Your task to perform on an android device: add a contact in the contacts app Image 0: 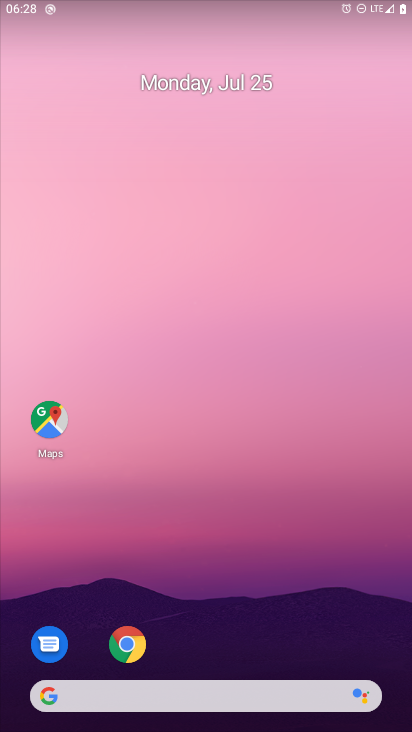
Step 0: press home button
Your task to perform on an android device: add a contact in the contacts app Image 1: 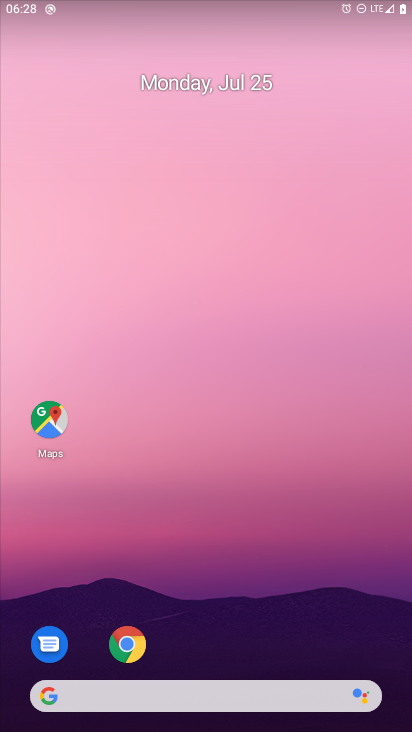
Step 1: drag from (248, 659) to (227, 149)
Your task to perform on an android device: add a contact in the contacts app Image 2: 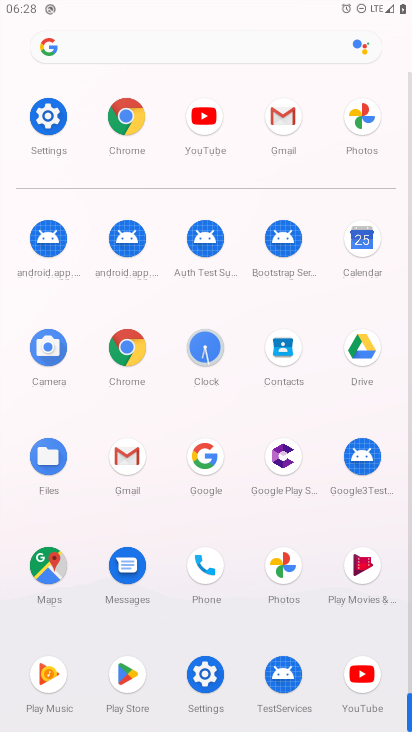
Step 2: click (286, 347)
Your task to perform on an android device: add a contact in the contacts app Image 3: 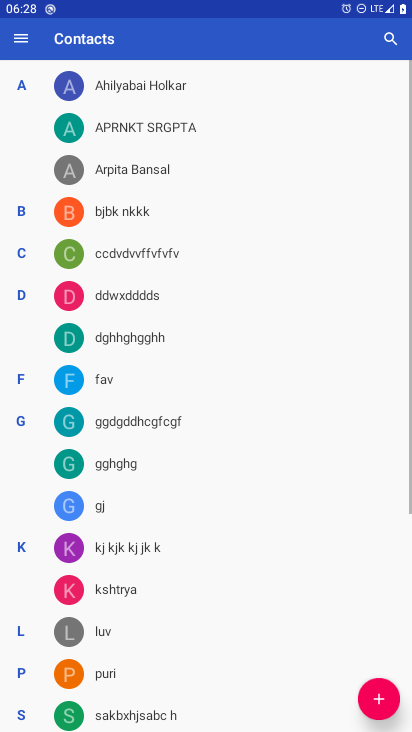
Step 3: click (375, 704)
Your task to perform on an android device: add a contact in the contacts app Image 4: 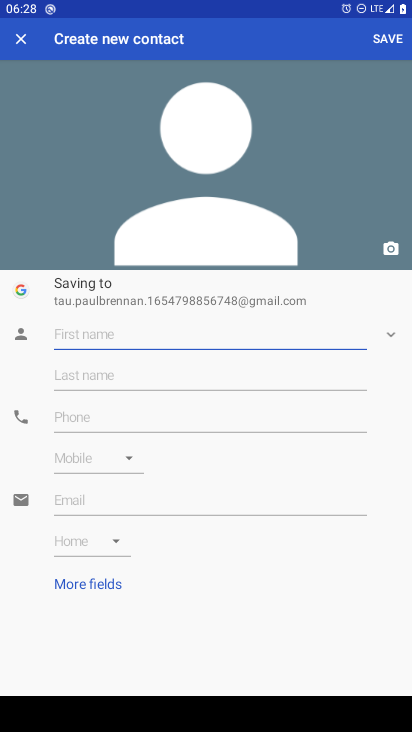
Step 4: type "jhjhjjhmh"
Your task to perform on an android device: add a contact in the contacts app Image 5: 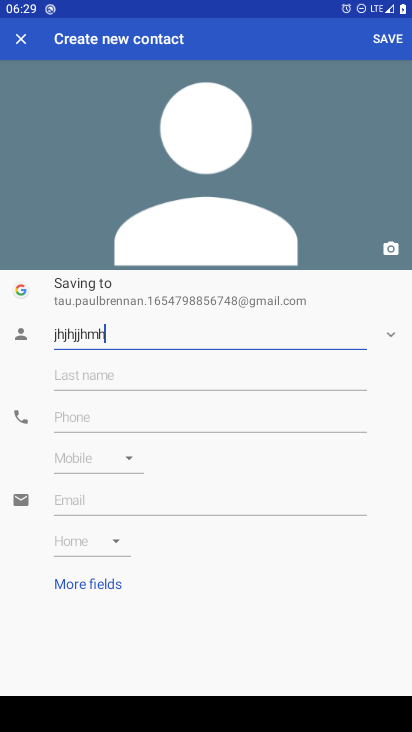
Step 5: click (177, 411)
Your task to perform on an android device: add a contact in the contacts app Image 6: 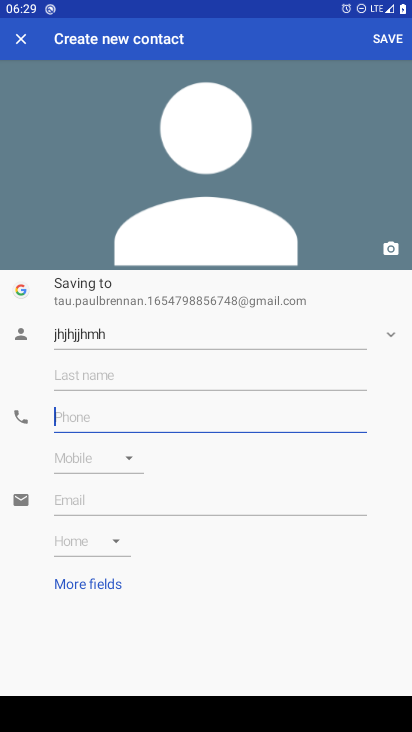
Step 6: type "767676"
Your task to perform on an android device: add a contact in the contacts app Image 7: 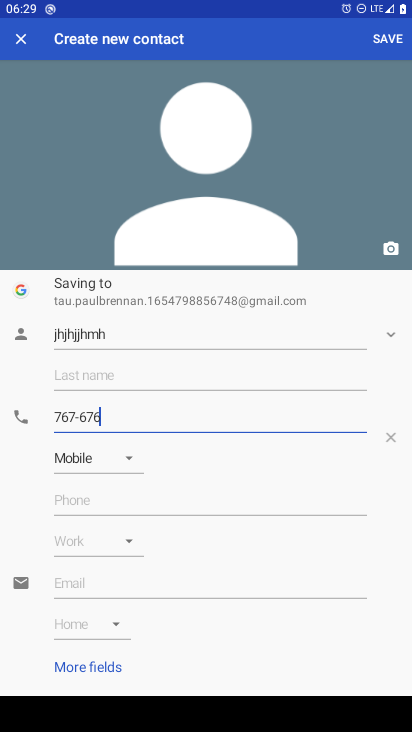
Step 7: click (392, 35)
Your task to perform on an android device: add a contact in the contacts app Image 8: 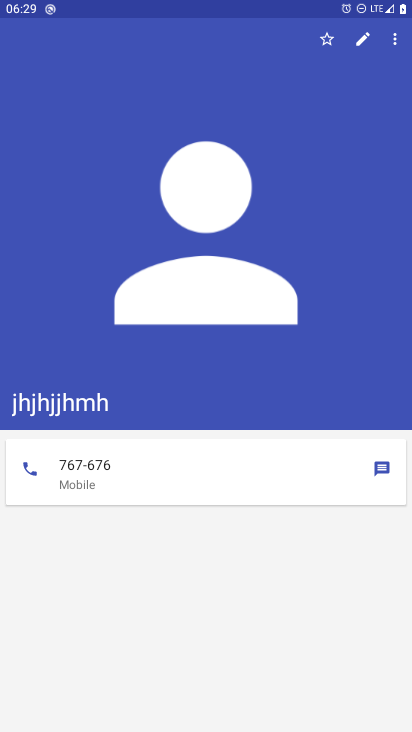
Step 8: task complete